Your task to perform on an android device: Add "razer blade" to the cart on costco, then select checkout. Image 0: 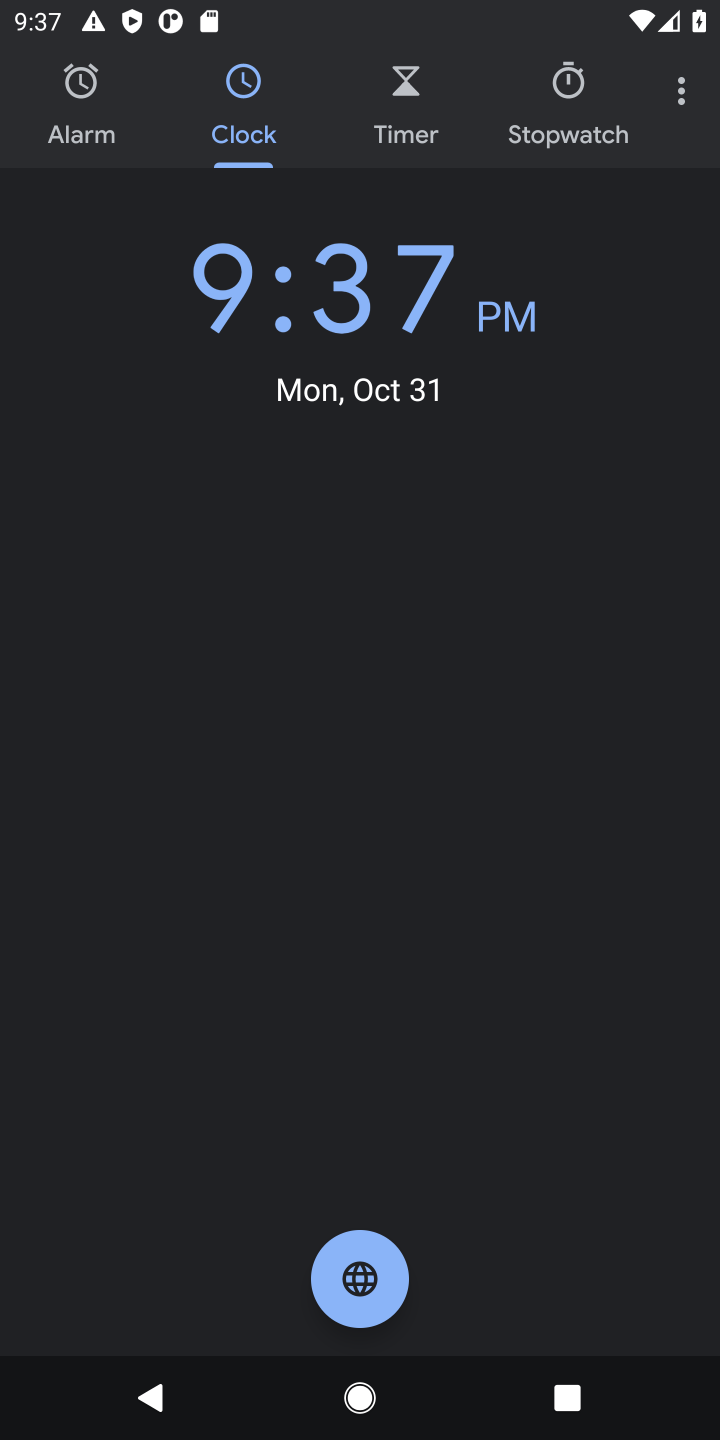
Step 0: press home button
Your task to perform on an android device: Add "razer blade" to the cart on costco, then select checkout. Image 1: 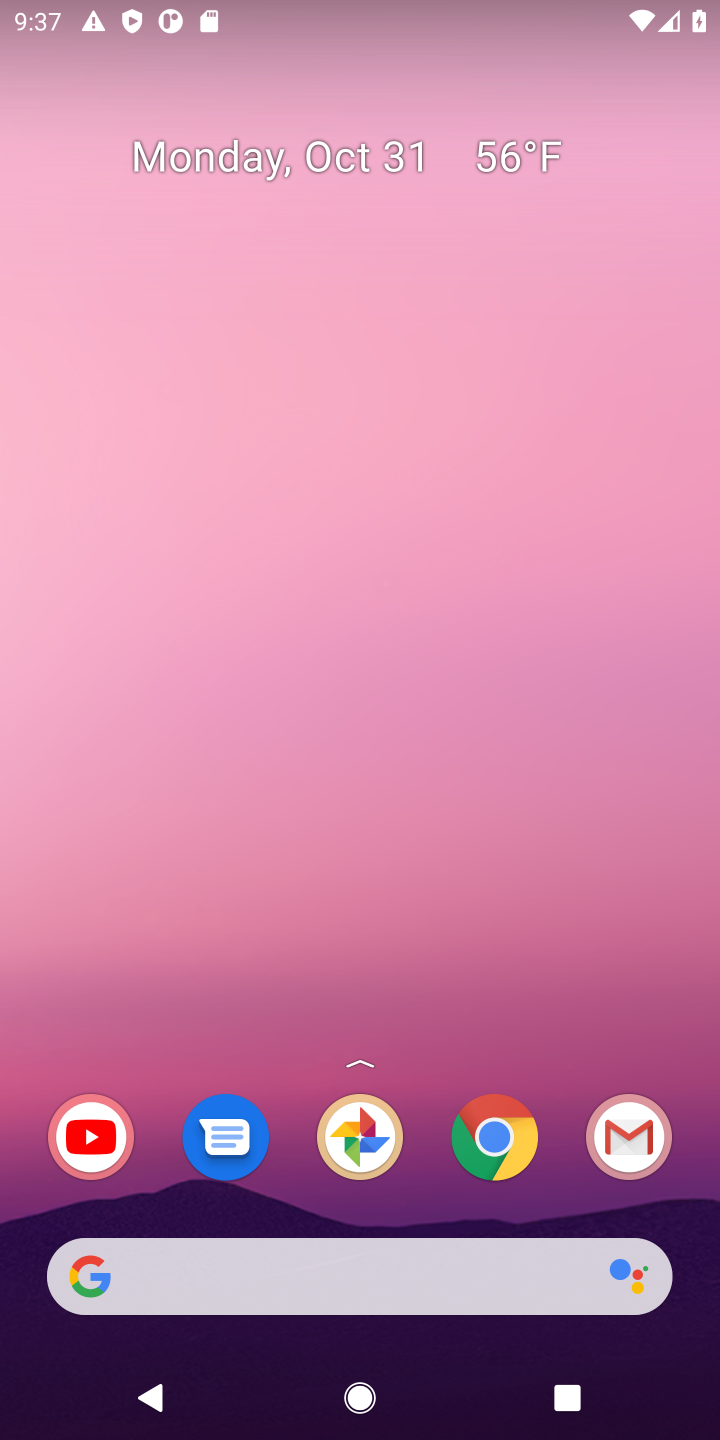
Step 1: click (491, 1141)
Your task to perform on an android device: Add "razer blade" to the cart on costco, then select checkout. Image 2: 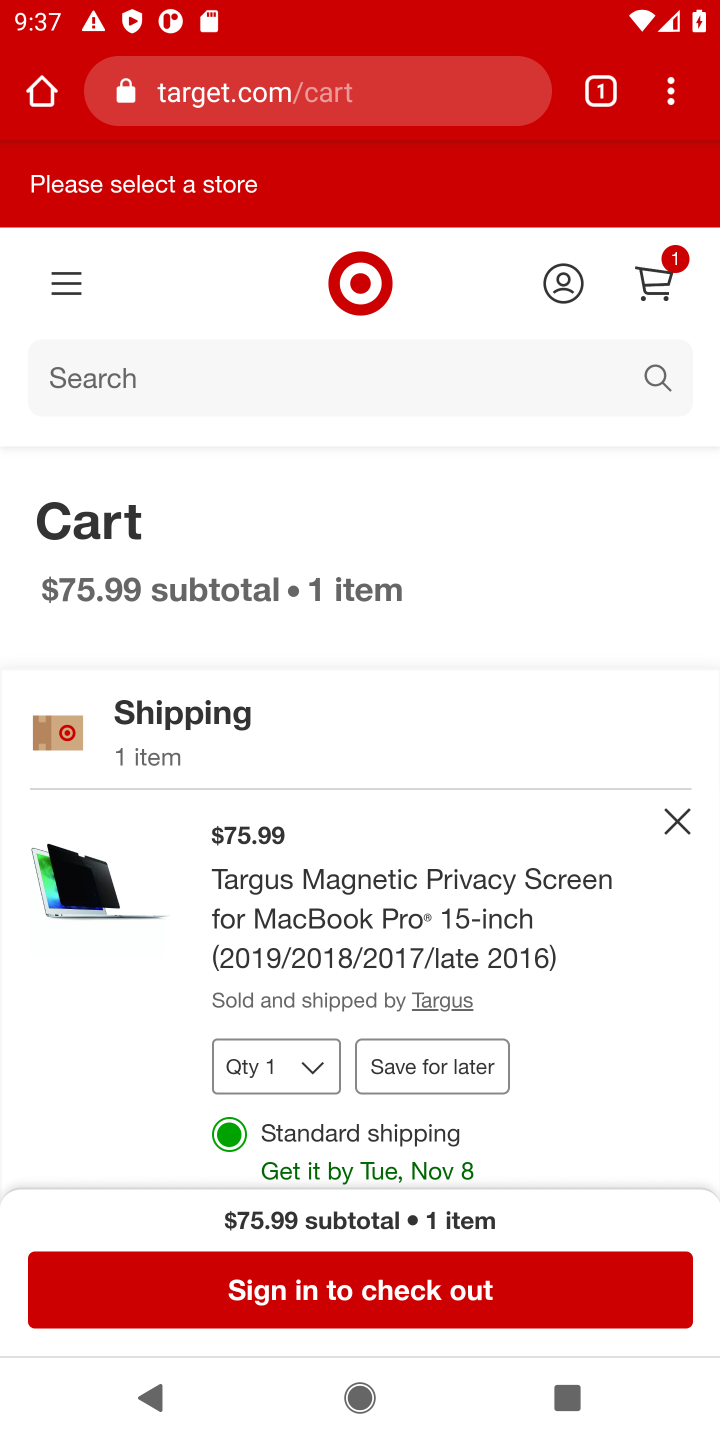
Step 2: click (340, 92)
Your task to perform on an android device: Add "razer blade" to the cart on costco, then select checkout. Image 3: 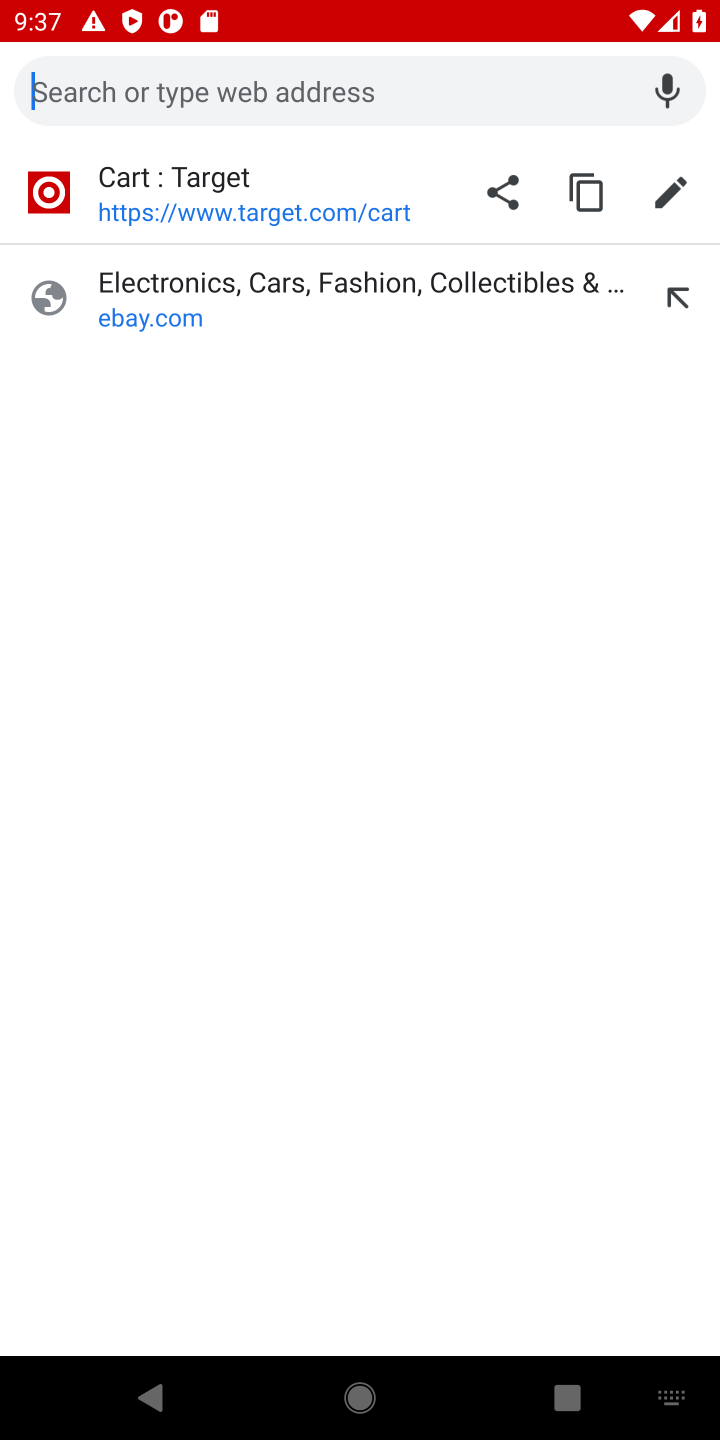
Step 3: type "costco"
Your task to perform on an android device: Add "razer blade" to the cart on costco, then select checkout. Image 4: 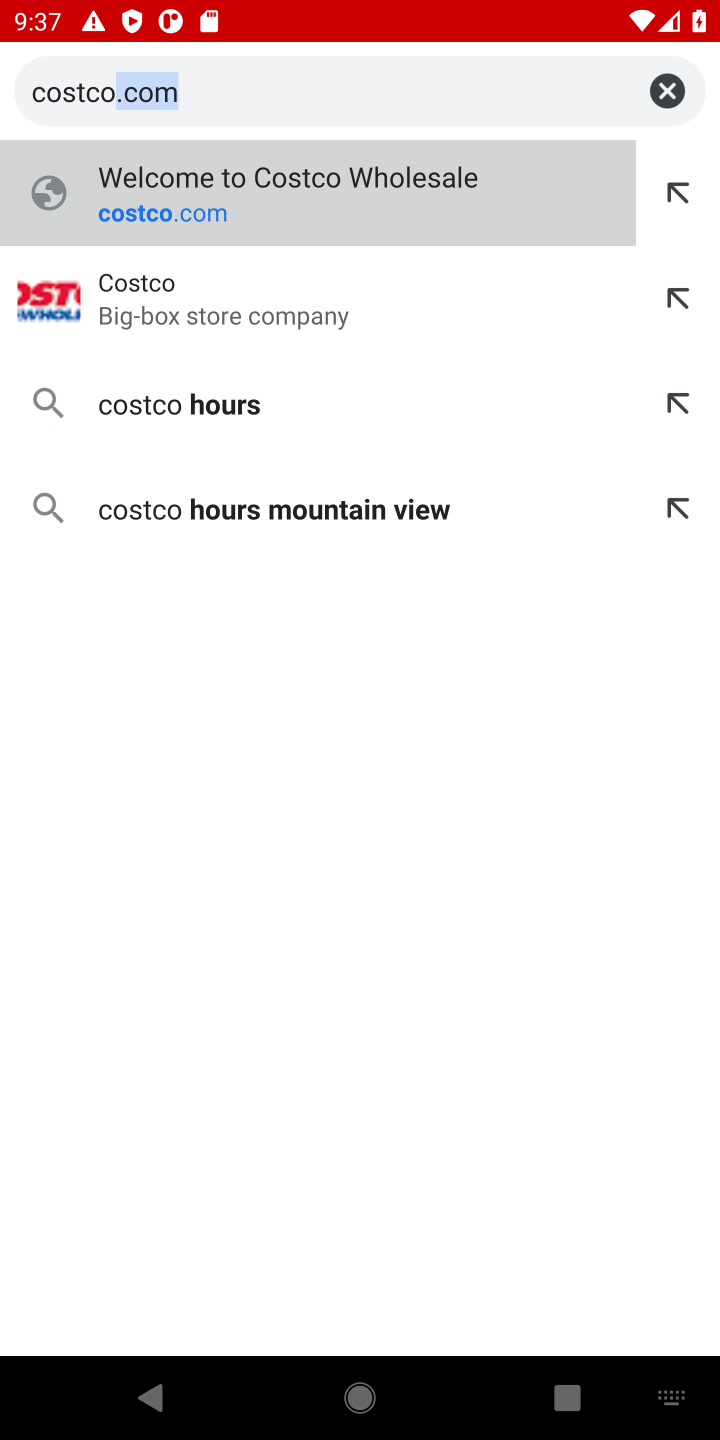
Step 4: click (191, 304)
Your task to perform on an android device: Add "razer blade" to the cart on costco, then select checkout. Image 5: 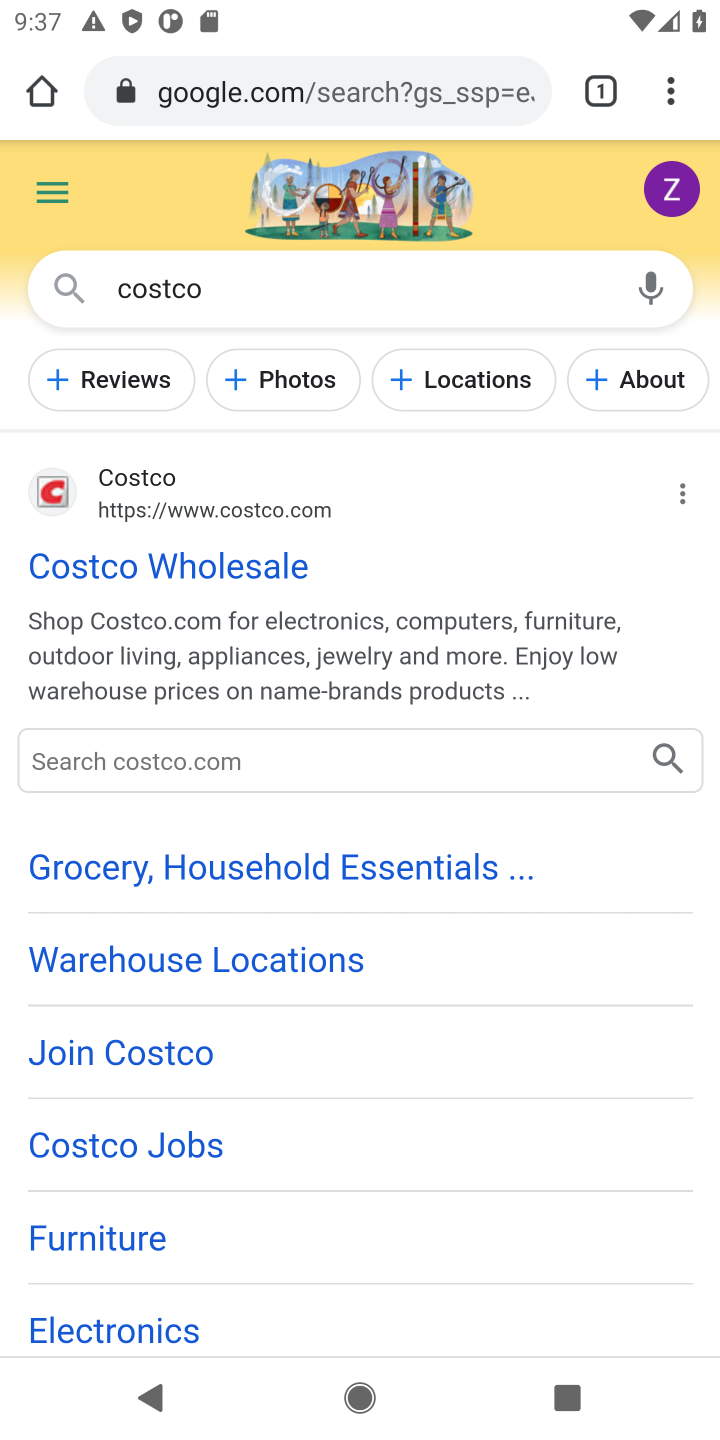
Step 5: click (225, 577)
Your task to perform on an android device: Add "razer blade" to the cart on costco, then select checkout. Image 6: 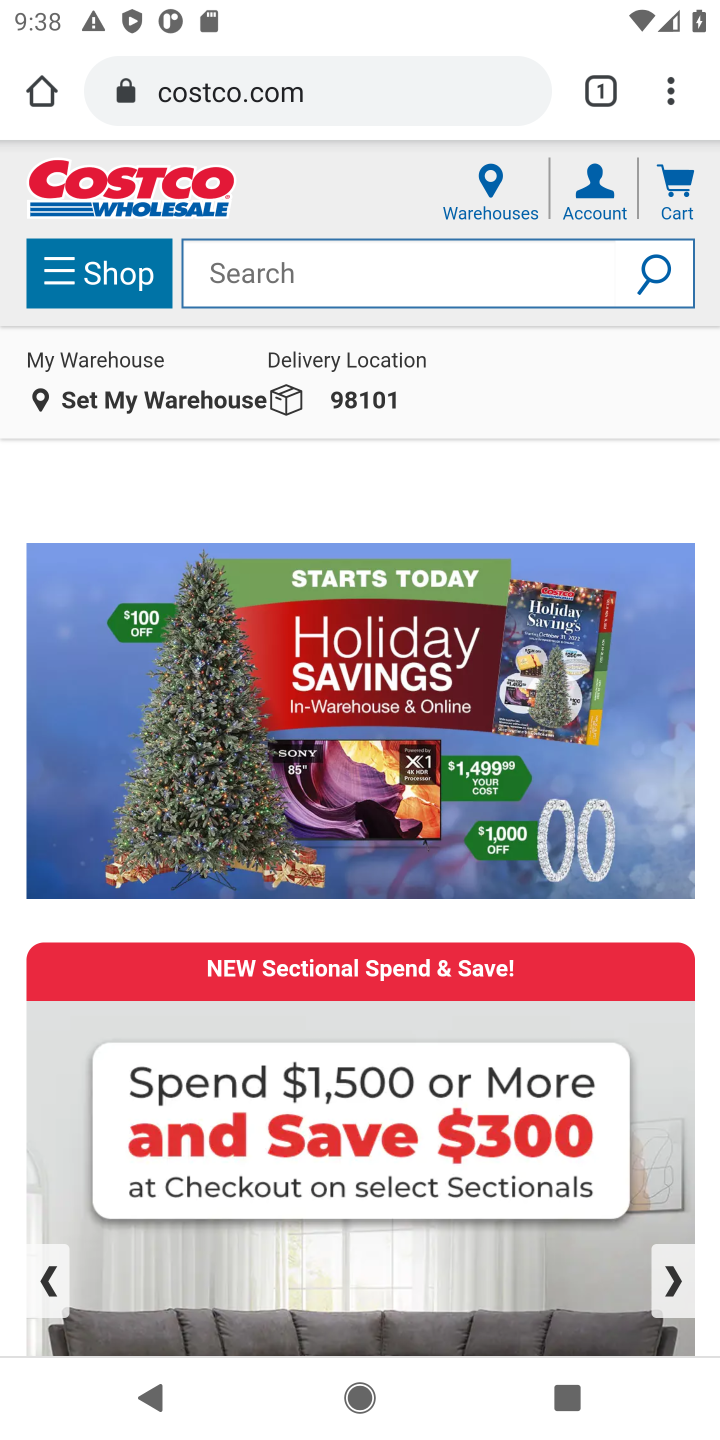
Step 6: click (271, 271)
Your task to perform on an android device: Add "razer blade" to the cart on costco, then select checkout. Image 7: 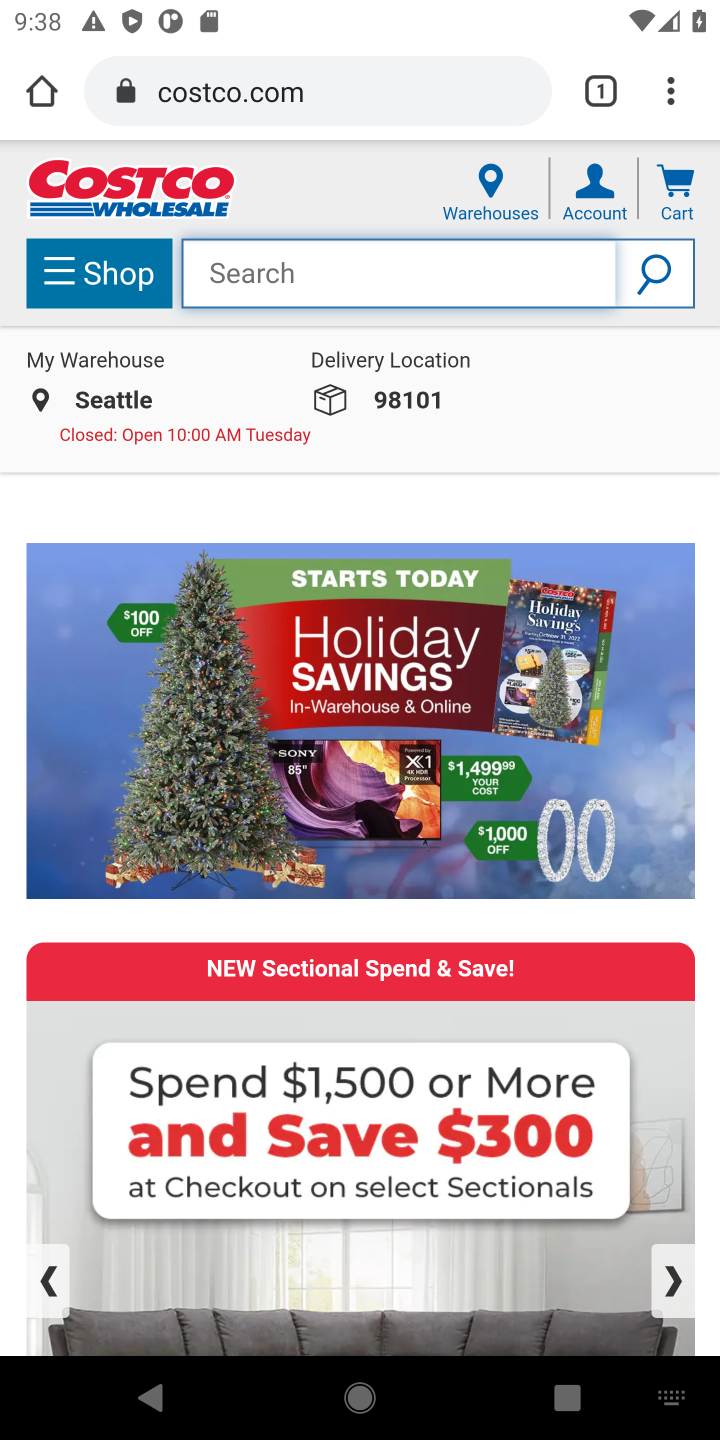
Step 7: type "razer blade"
Your task to perform on an android device: Add "razer blade" to the cart on costco, then select checkout. Image 8: 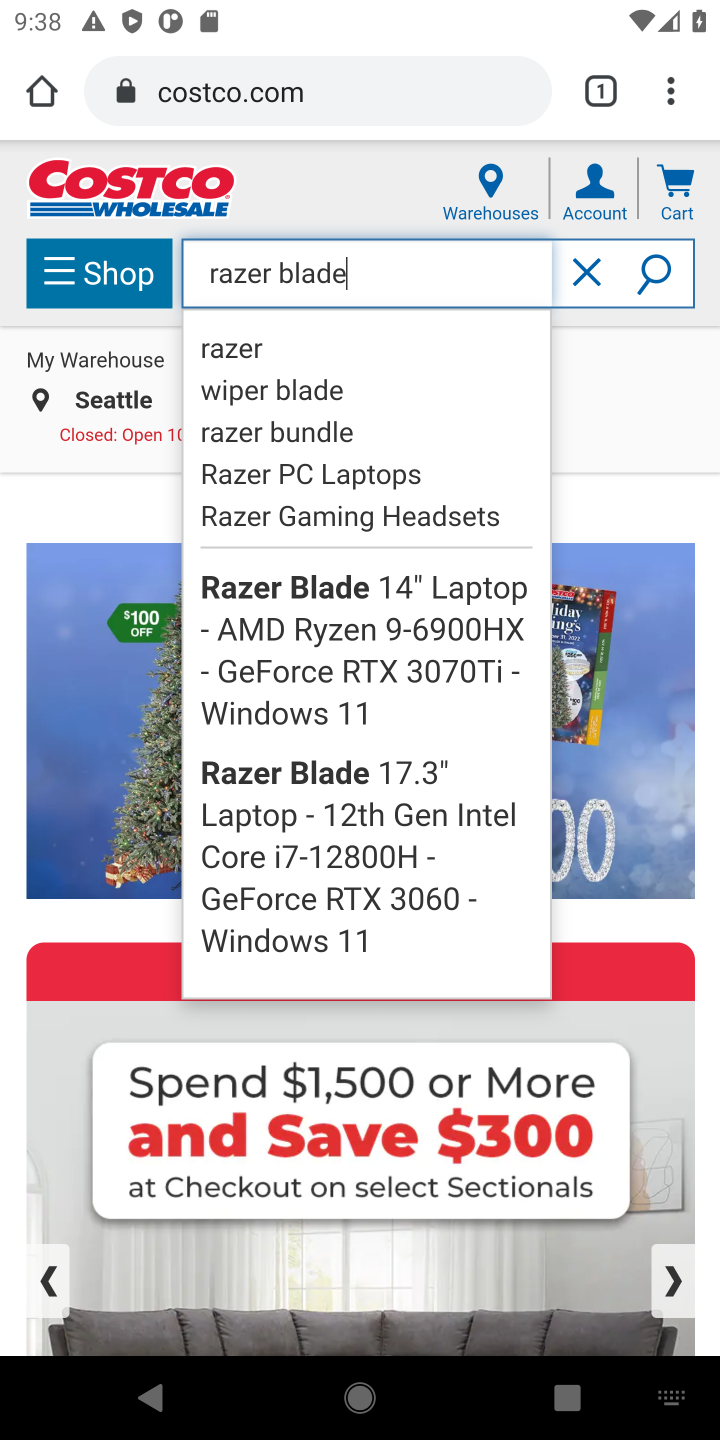
Step 8: click (658, 263)
Your task to perform on an android device: Add "razer blade" to the cart on costco, then select checkout. Image 9: 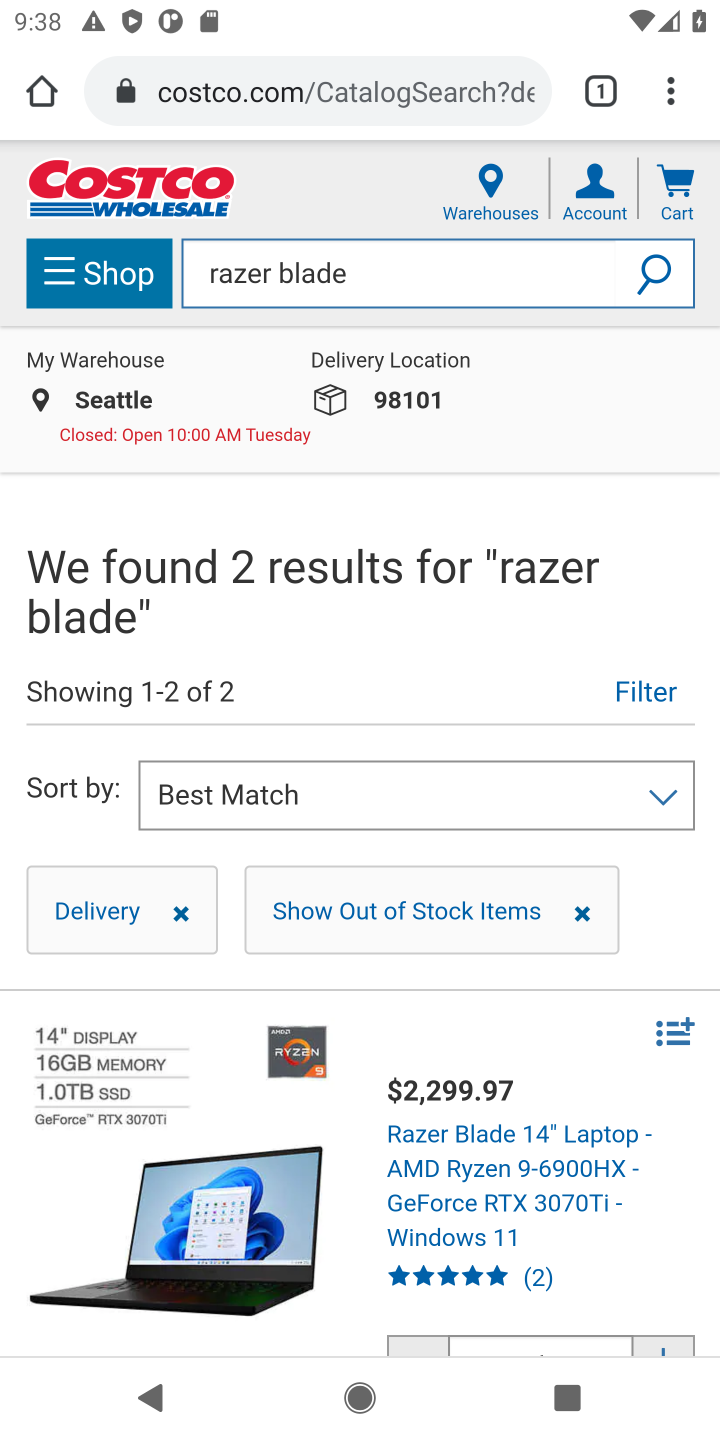
Step 9: click (464, 1160)
Your task to perform on an android device: Add "razer blade" to the cart on costco, then select checkout. Image 10: 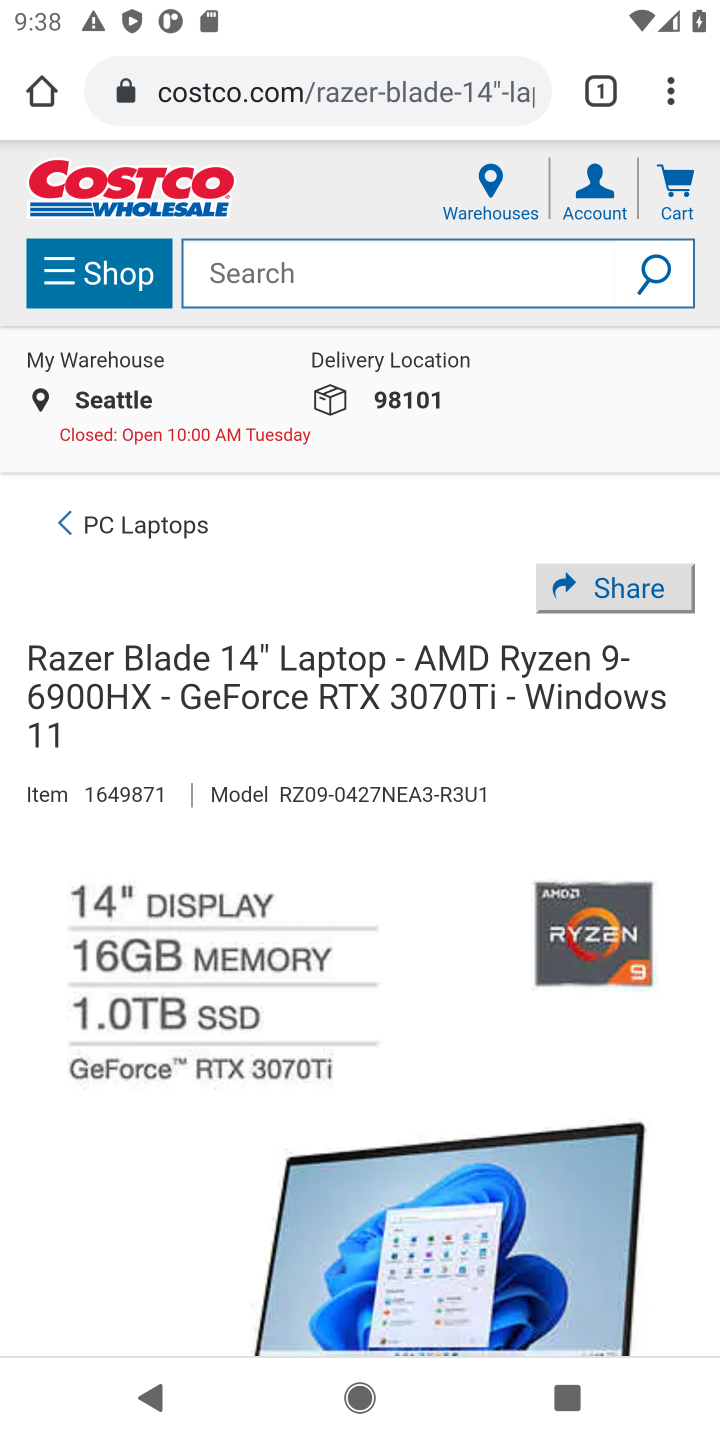
Step 10: drag from (399, 1032) to (440, 440)
Your task to perform on an android device: Add "razer blade" to the cart on costco, then select checkout. Image 11: 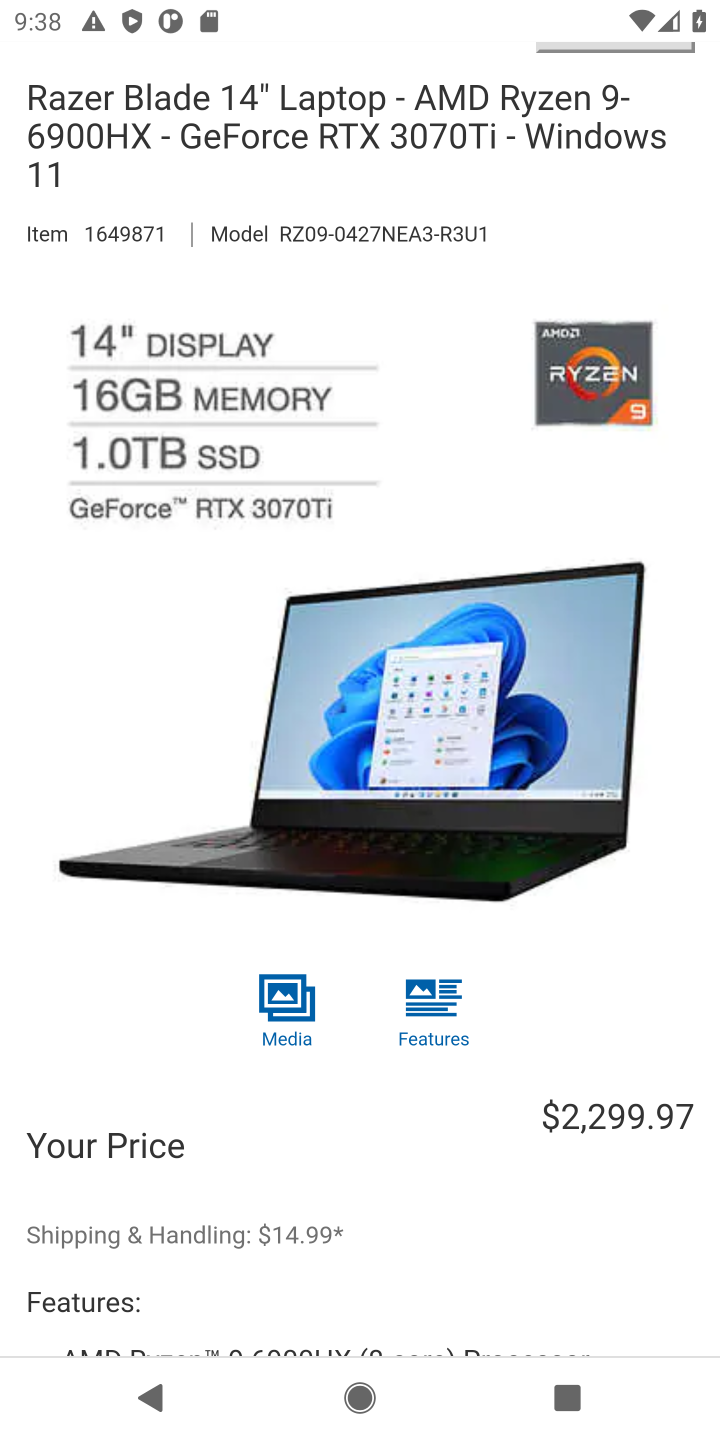
Step 11: drag from (404, 1089) to (440, 547)
Your task to perform on an android device: Add "razer blade" to the cart on costco, then select checkout. Image 12: 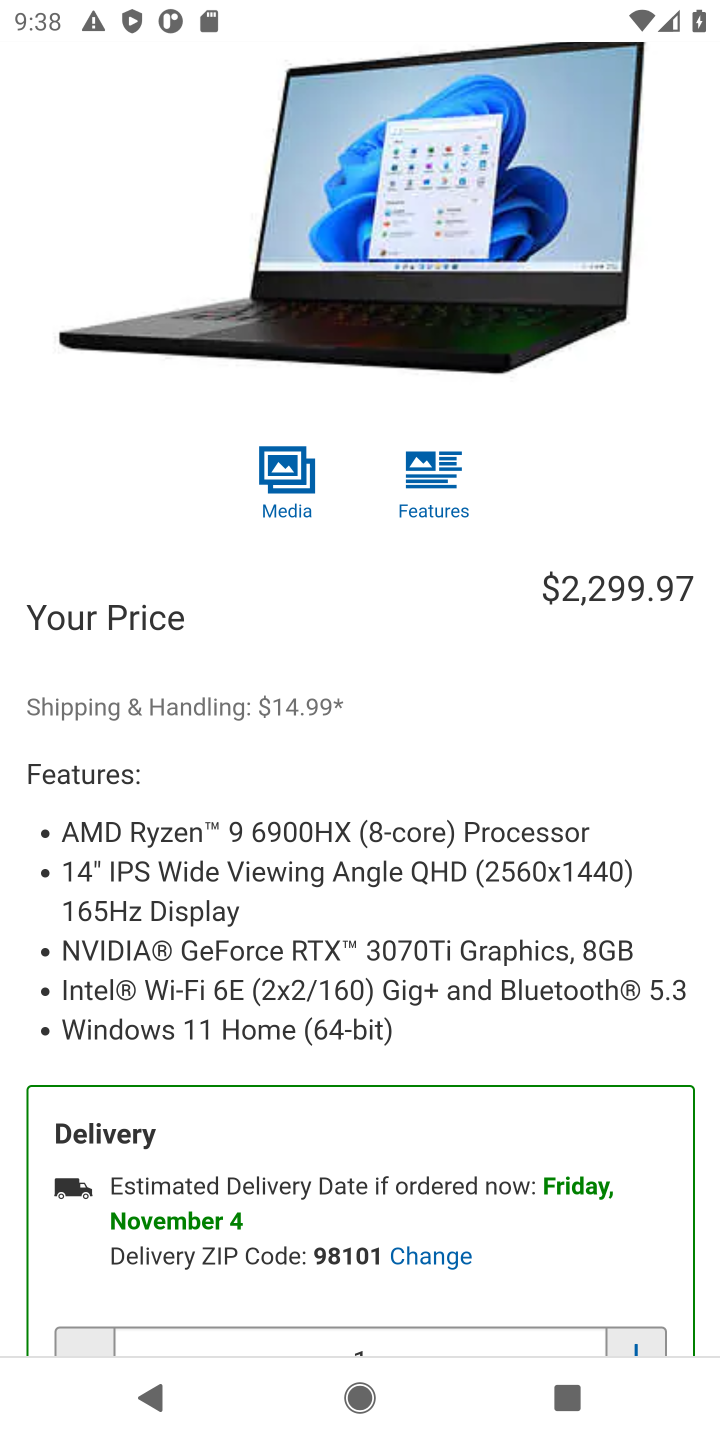
Step 12: drag from (317, 1050) to (373, 454)
Your task to perform on an android device: Add "razer blade" to the cart on costco, then select checkout. Image 13: 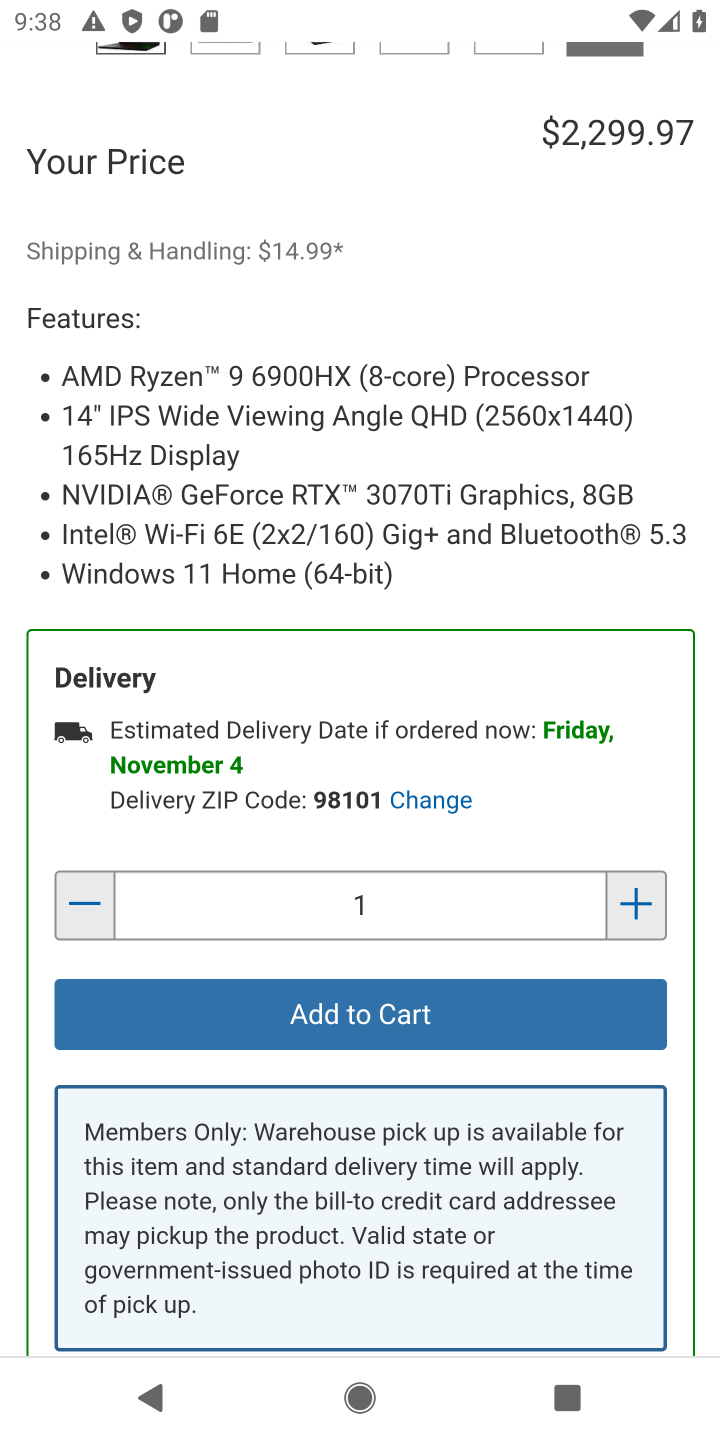
Step 13: click (358, 1021)
Your task to perform on an android device: Add "razer blade" to the cart on costco, then select checkout. Image 14: 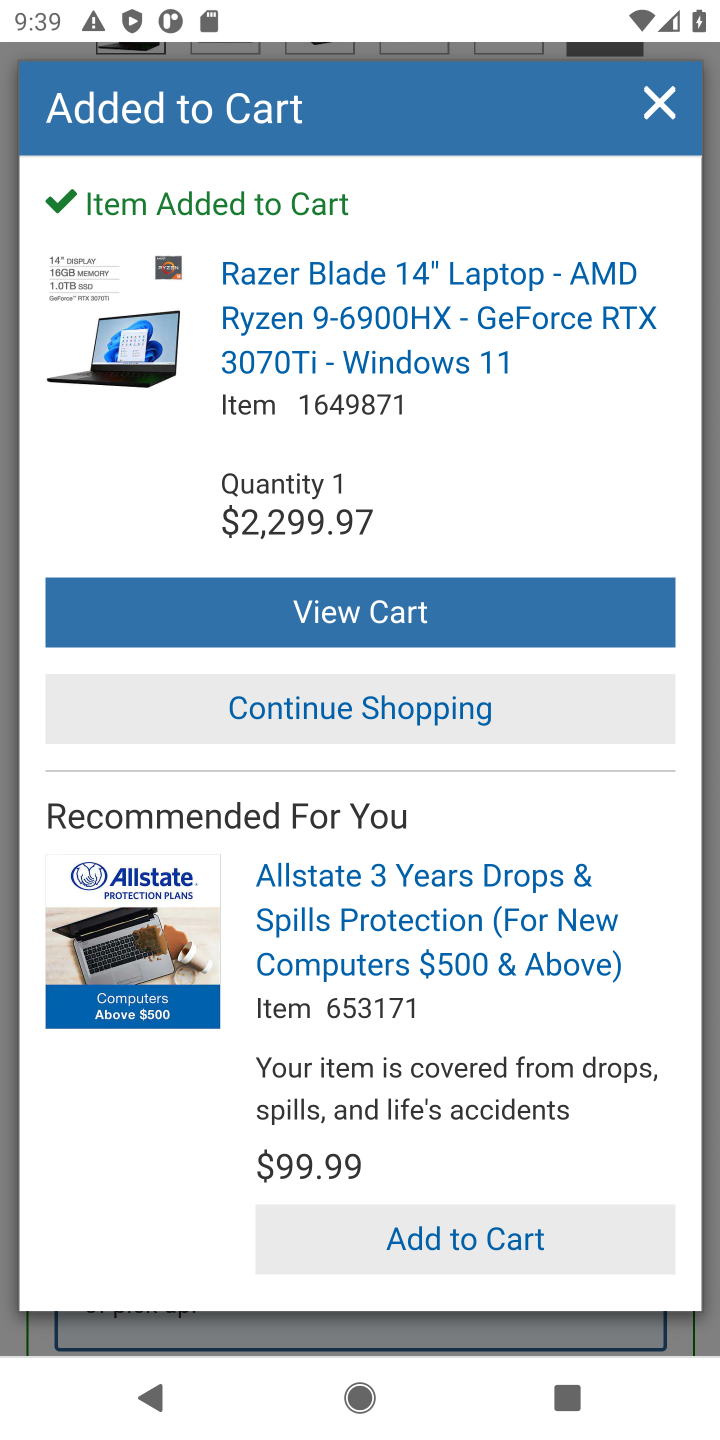
Step 14: click (390, 615)
Your task to perform on an android device: Add "razer blade" to the cart on costco, then select checkout. Image 15: 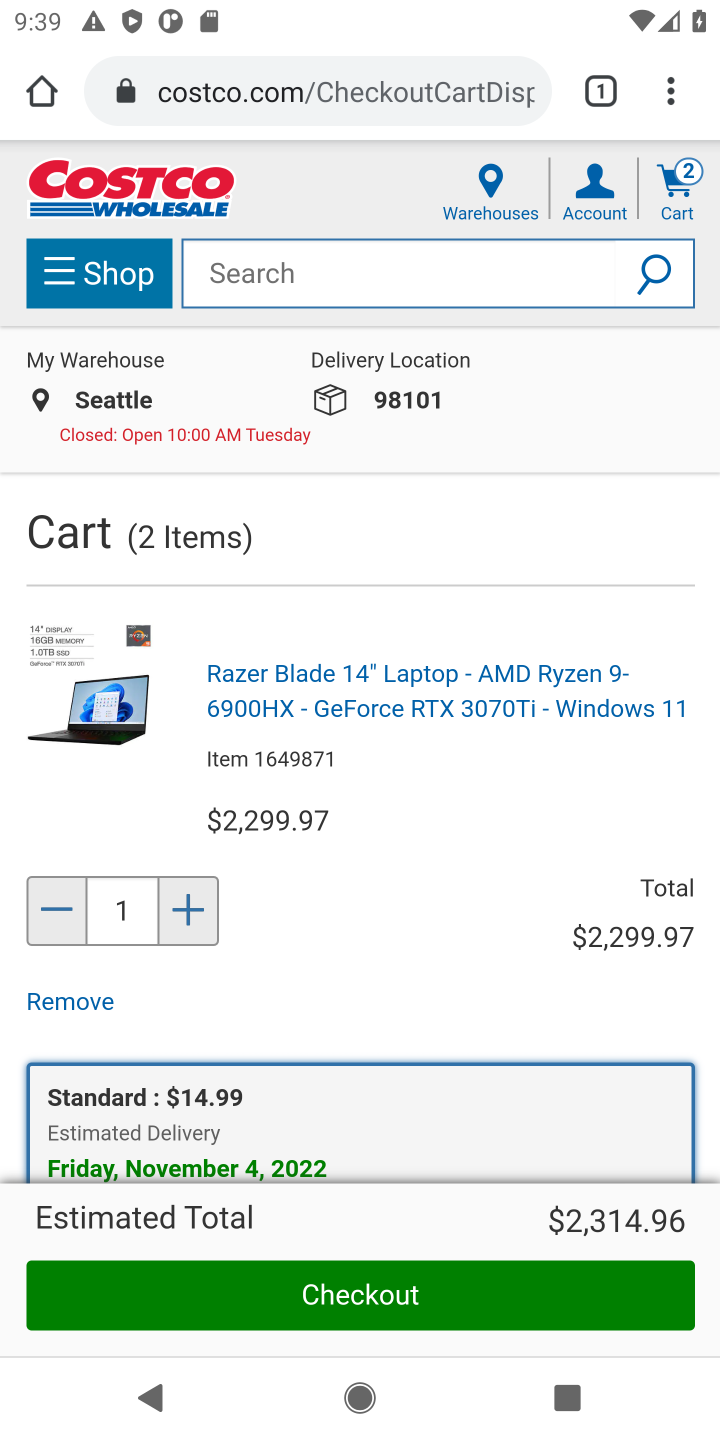
Step 15: click (334, 1294)
Your task to perform on an android device: Add "razer blade" to the cart on costco, then select checkout. Image 16: 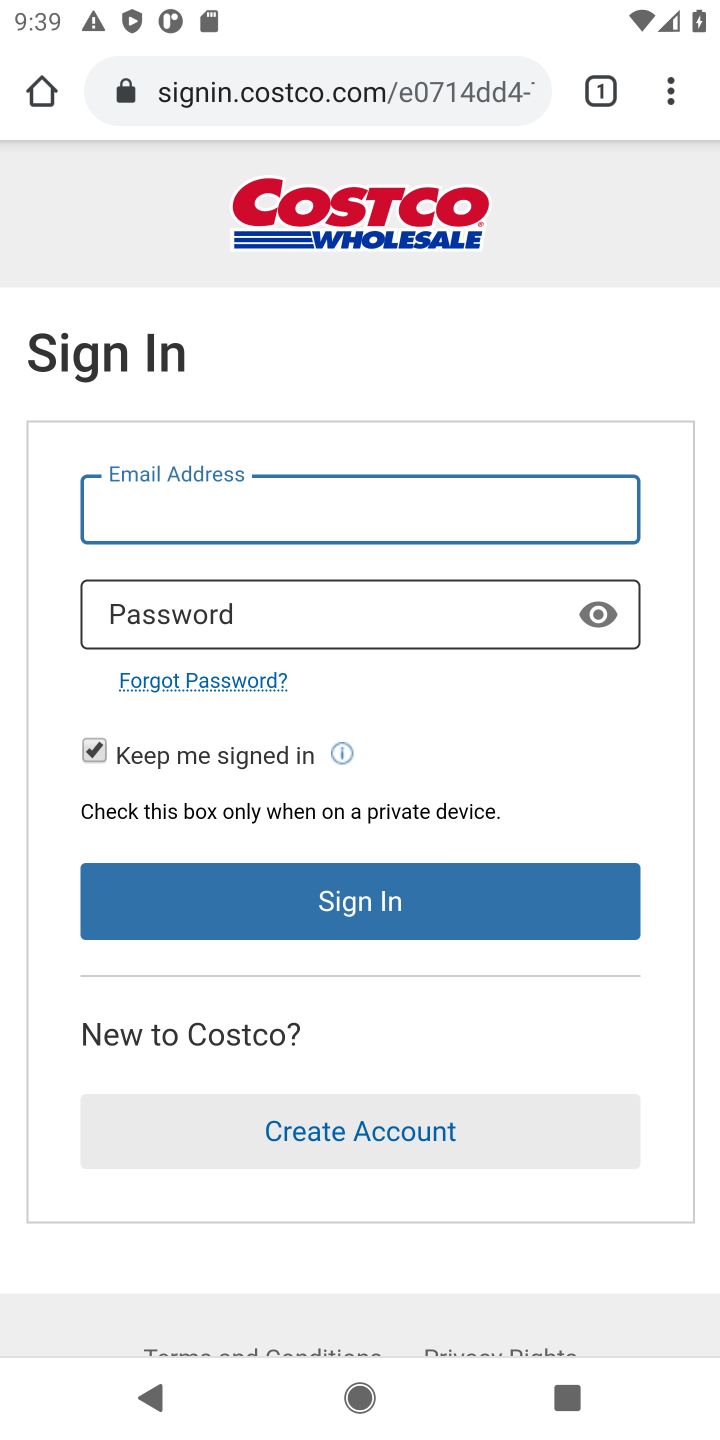
Step 16: task complete